Your task to perform on an android device: turn notification dots on Image 0: 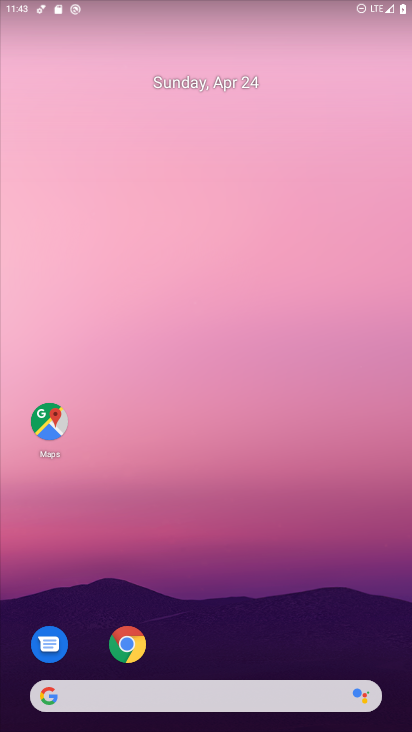
Step 0: drag from (182, 628) to (278, 95)
Your task to perform on an android device: turn notification dots on Image 1: 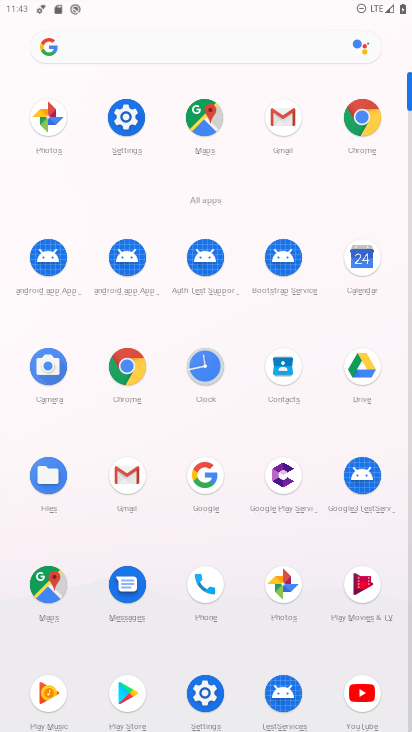
Step 1: click (122, 113)
Your task to perform on an android device: turn notification dots on Image 2: 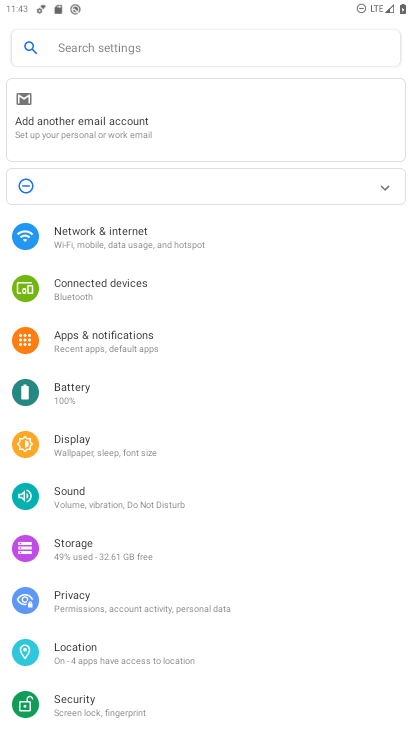
Step 2: click (118, 339)
Your task to perform on an android device: turn notification dots on Image 3: 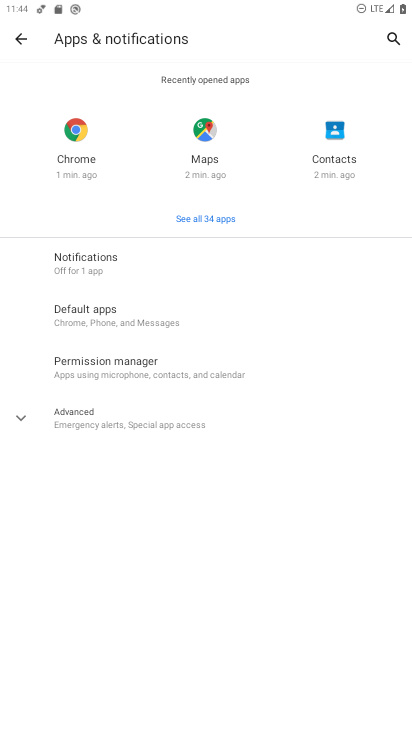
Step 3: click (107, 281)
Your task to perform on an android device: turn notification dots on Image 4: 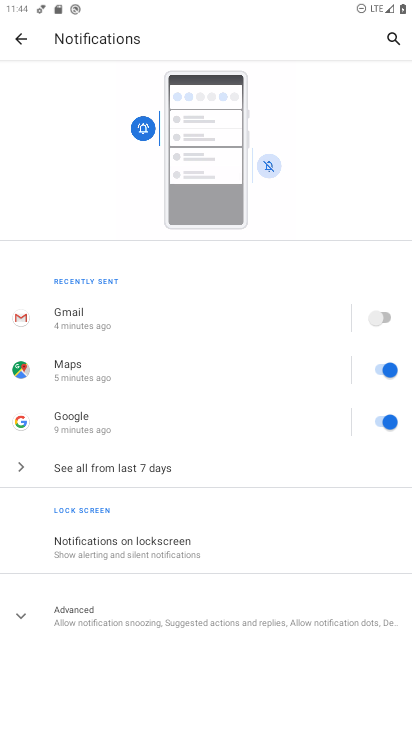
Step 4: click (107, 605)
Your task to perform on an android device: turn notification dots on Image 5: 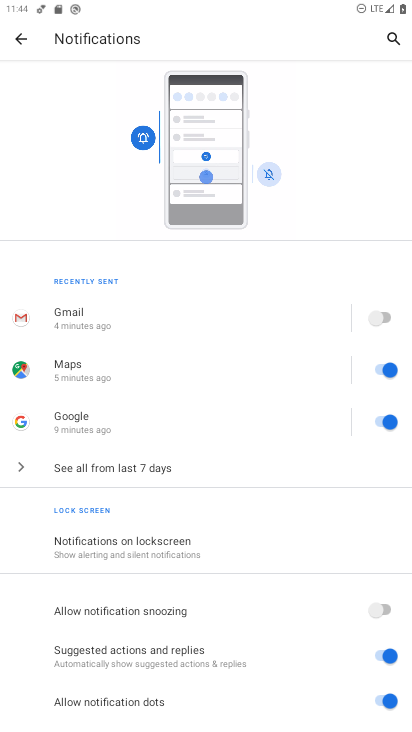
Step 5: task complete